Your task to perform on an android device: change the clock display to analog Image 0: 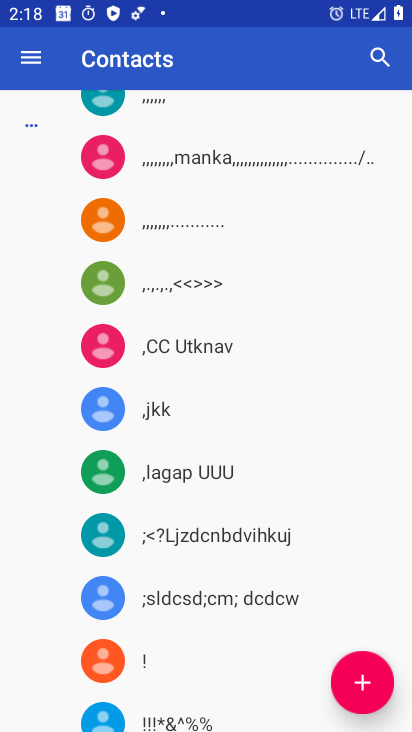
Step 0: press home button
Your task to perform on an android device: change the clock display to analog Image 1: 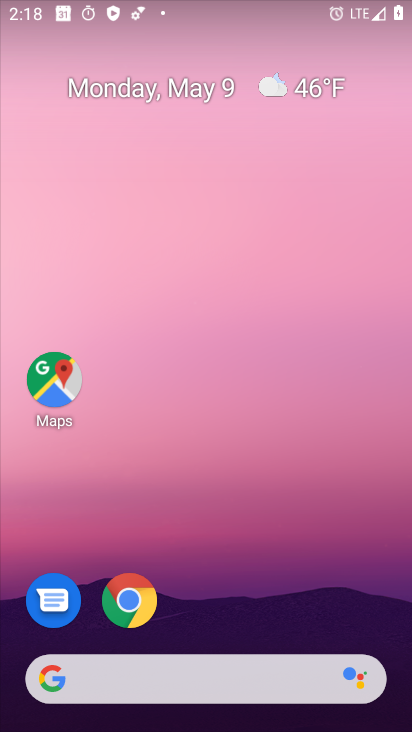
Step 1: drag from (153, 664) to (202, 158)
Your task to perform on an android device: change the clock display to analog Image 2: 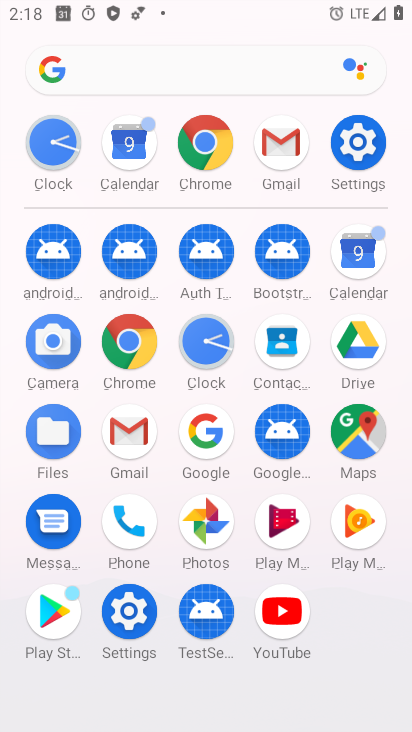
Step 2: click (203, 358)
Your task to perform on an android device: change the clock display to analog Image 3: 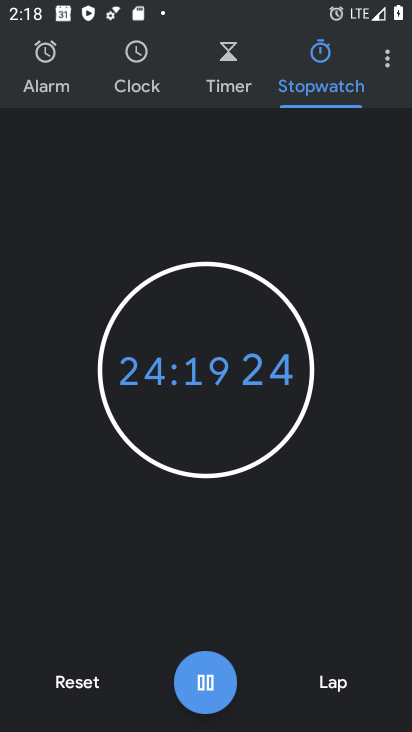
Step 3: click (377, 62)
Your task to perform on an android device: change the clock display to analog Image 4: 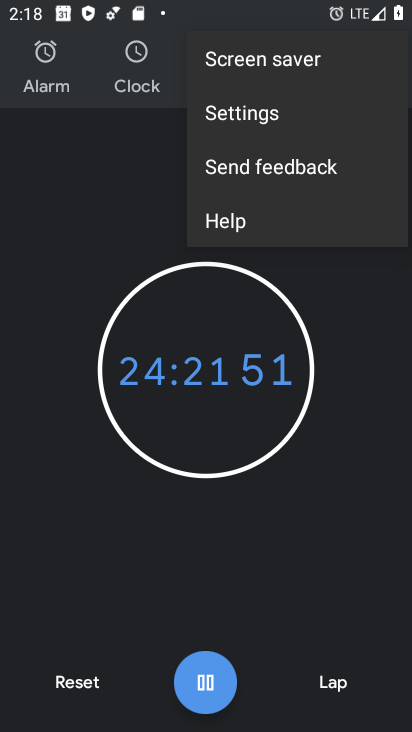
Step 4: click (288, 104)
Your task to perform on an android device: change the clock display to analog Image 5: 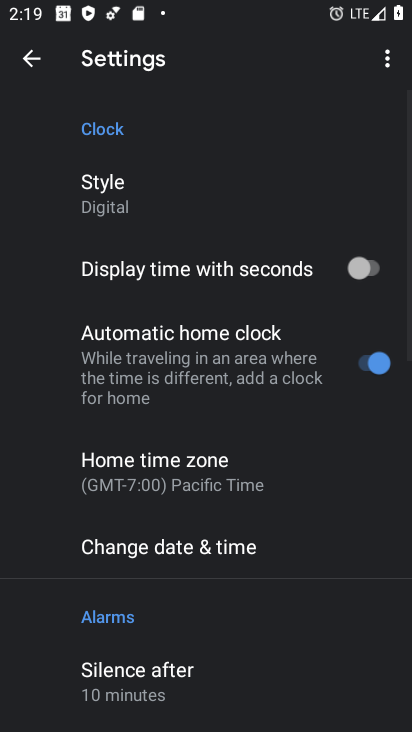
Step 5: click (207, 188)
Your task to perform on an android device: change the clock display to analog Image 6: 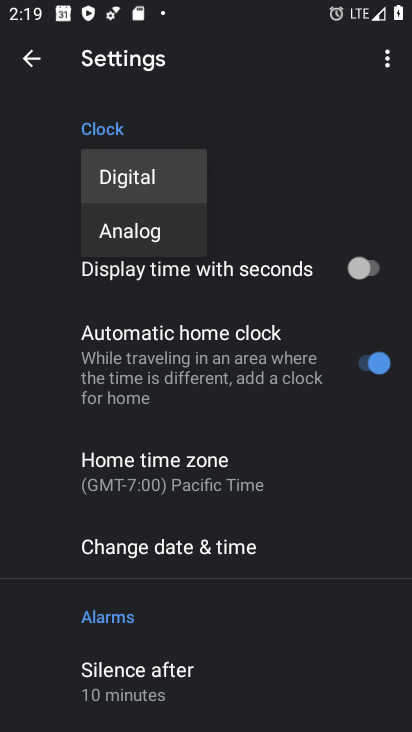
Step 6: click (147, 235)
Your task to perform on an android device: change the clock display to analog Image 7: 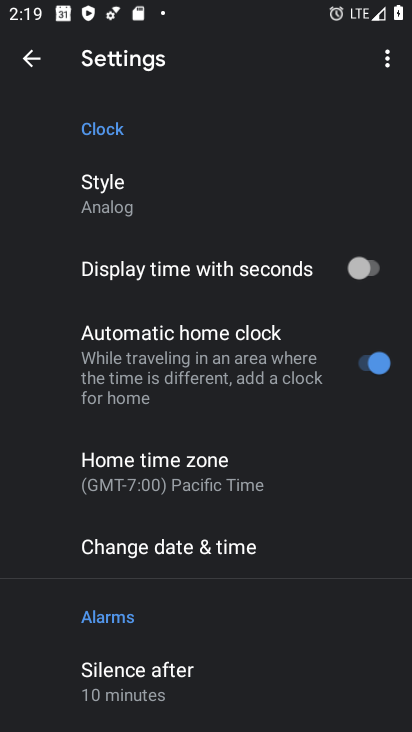
Step 7: task complete